Your task to perform on an android device: Open battery settings Image 0: 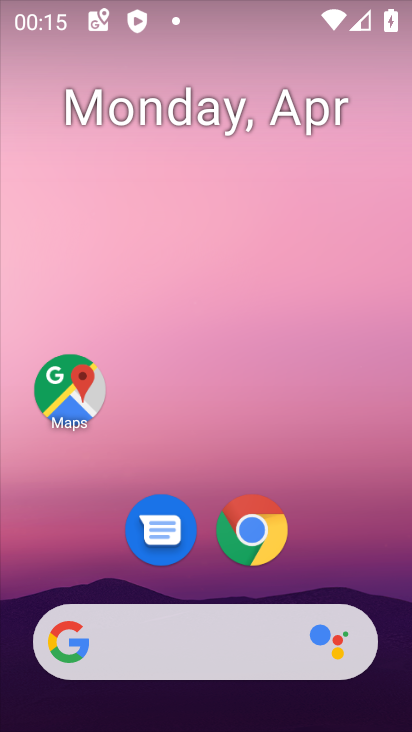
Step 0: drag from (171, 555) to (318, 12)
Your task to perform on an android device: Open battery settings Image 1: 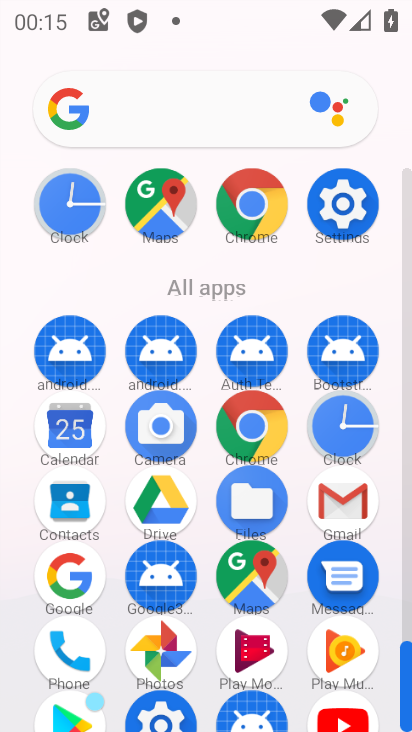
Step 1: click (335, 215)
Your task to perform on an android device: Open battery settings Image 2: 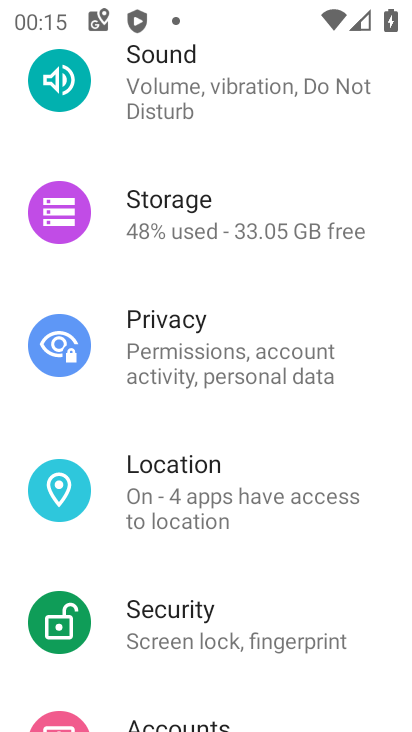
Step 2: drag from (287, 174) to (262, 625)
Your task to perform on an android device: Open battery settings Image 3: 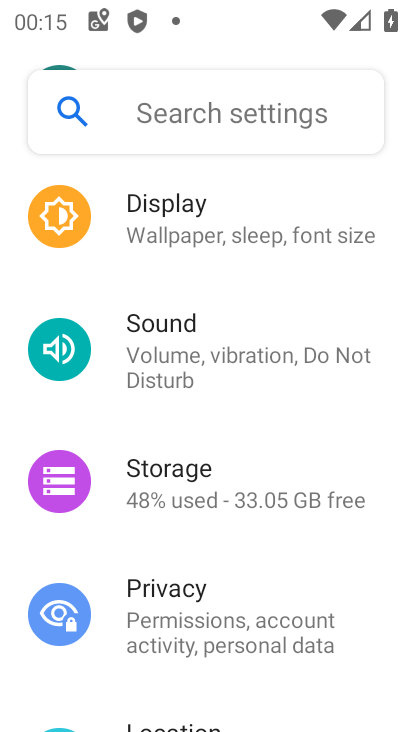
Step 3: drag from (284, 180) to (254, 556)
Your task to perform on an android device: Open battery settings Image 4: 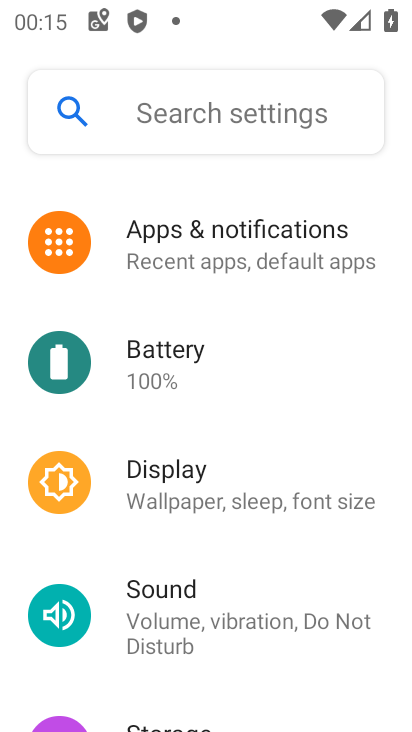
Step 4: click (181, 365)
Your task to perform on an android device: Open battery settings Image 5: 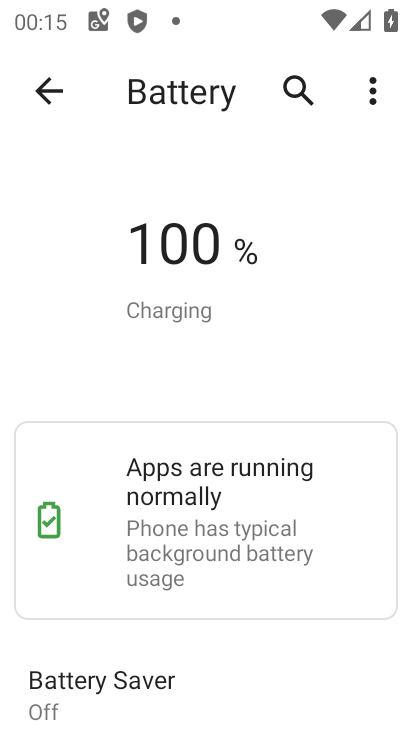
Step 5: task complete